Your task to perform on an android device: Turn off the flashlight Image 0: 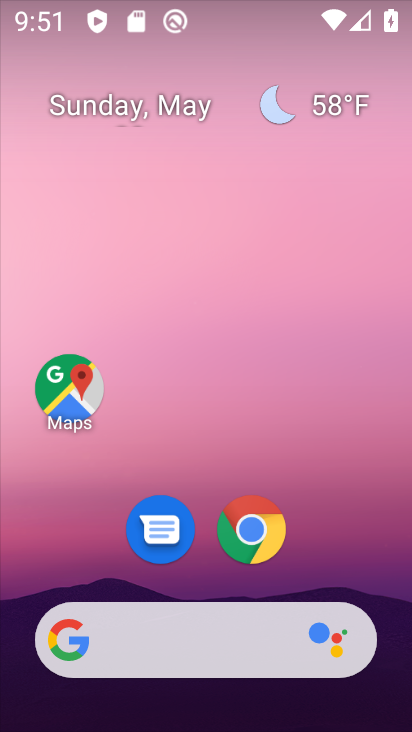
Step 0: drag from (206, 593) to (279, 6)
Your task to perform on an android device: Turn off the flashlight Image 1: 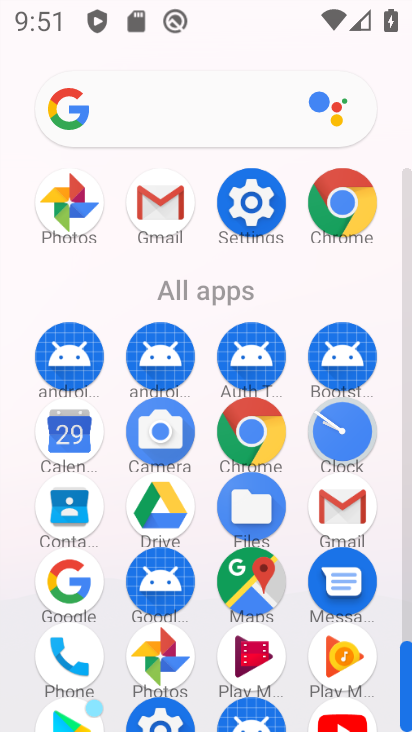
Step 1: click (257, 208)
Your task to perform on an android device: Turn off the flashlight Image 2: 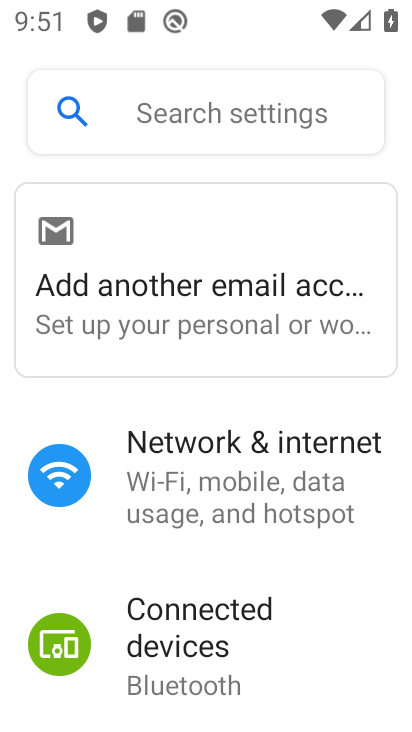
Step 2: click (205, 100)
Your task to perform on an android device: Turn off the flashlight Image 3: 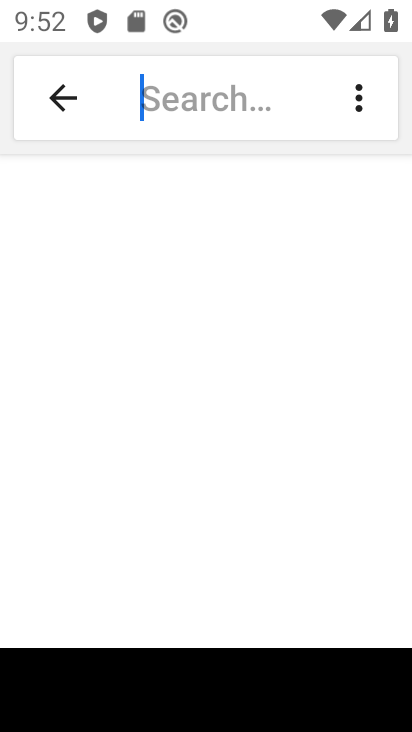
Step 3: type "flashlight"
Your task to perform on an android device: Turn off the flashlight Image 4: 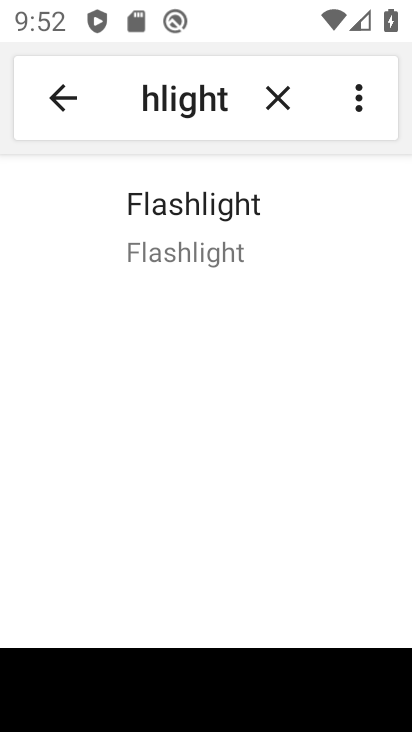
Step 4: click (203, 239)
Your task to perform on an android device: Turn off the flashlight Image 5: 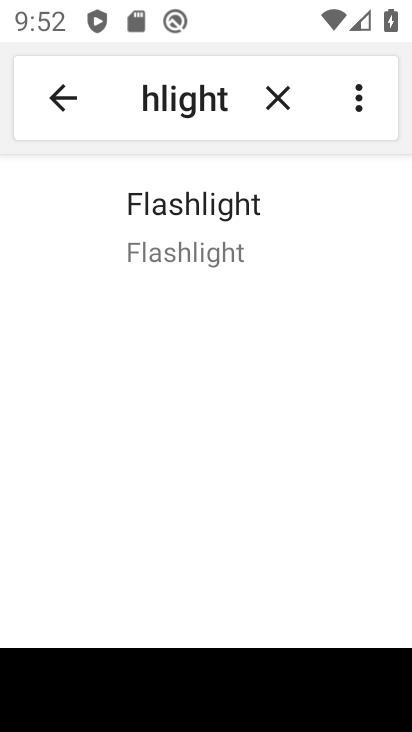
Step 5: click (204, 240)
Your task to perform on an android device: Turn off the flashlight Image 6: 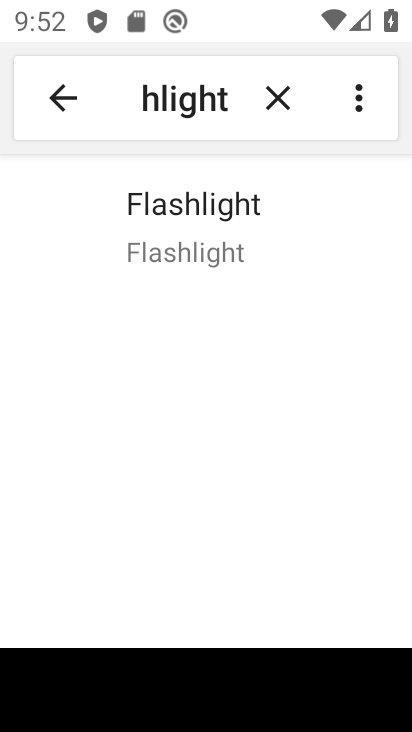
Step 6: task complete